Your task to perform on an android device: Is it going to rain this weekend? Image 0: 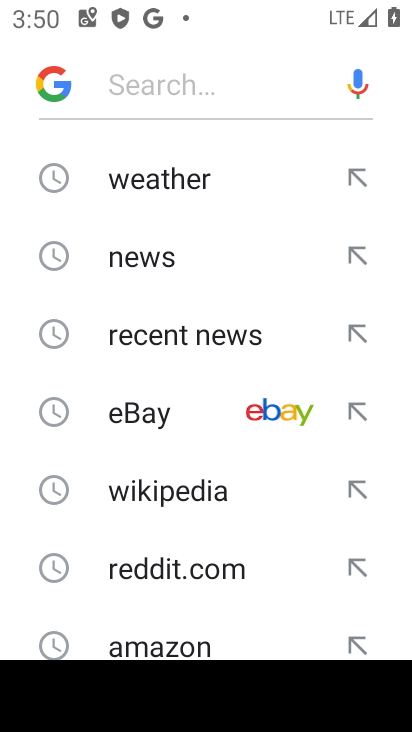
Step 0: press home button
Your task to perform on an android device: Is it going to rain this weekend? Image 1: 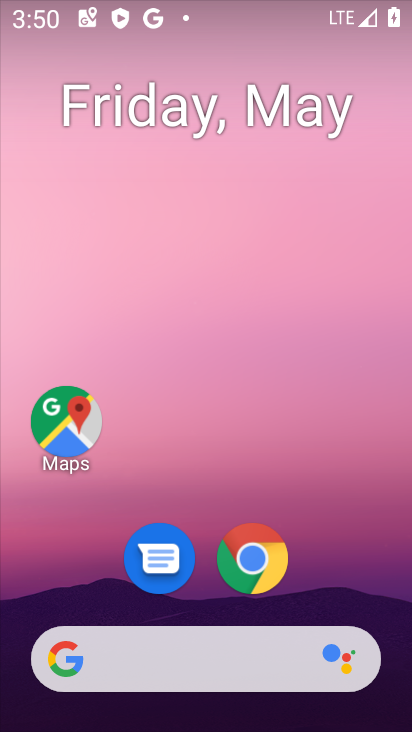
Step 1: click (74, 662)
Your task to perform on an android device: Is it going to rain this weekend? Image 2: 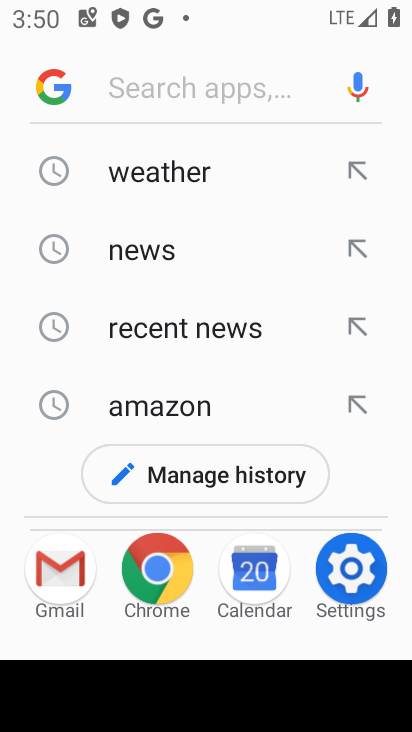
Step 2: click (167, 177)
Your task to perform on an android device: Is it going to rain this weekend? Image 3: 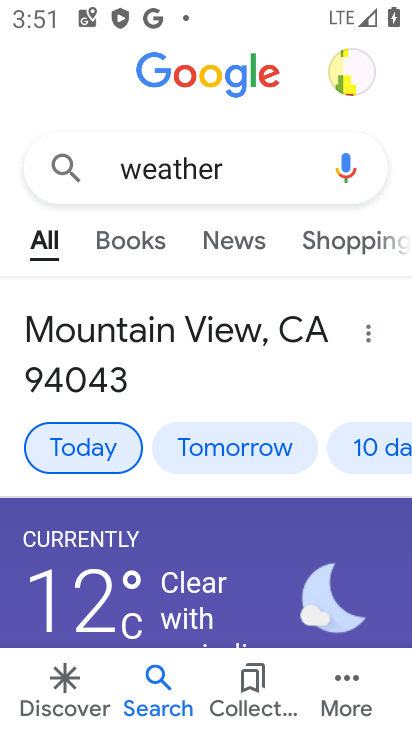
Step 3: click (385, 450)
Your task to perform on an android device: Is it going to rain this weekend? Image 4: 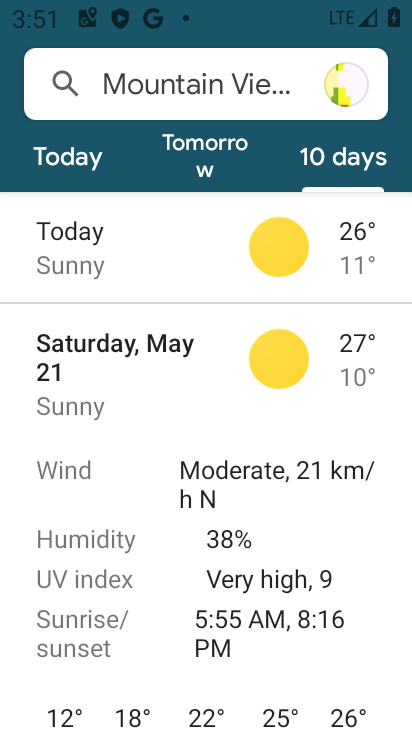
Step 4: task complete